Your task to perform on an android device: find which apps use the phone's location Image 0: 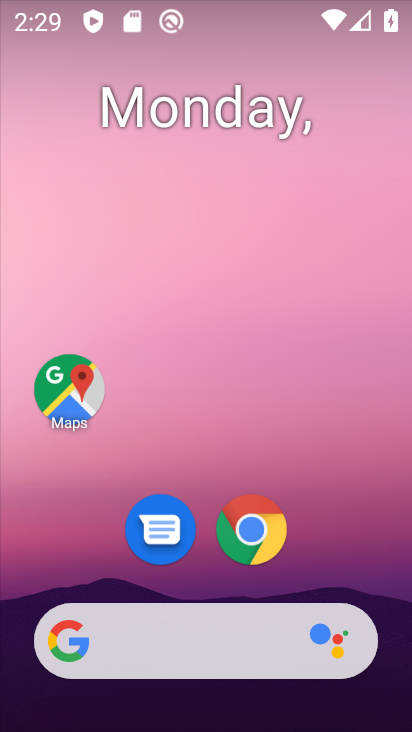
Step 0: click (354, 433)
Your task to perform on an android device: find which apps use the phone's location Image 1: 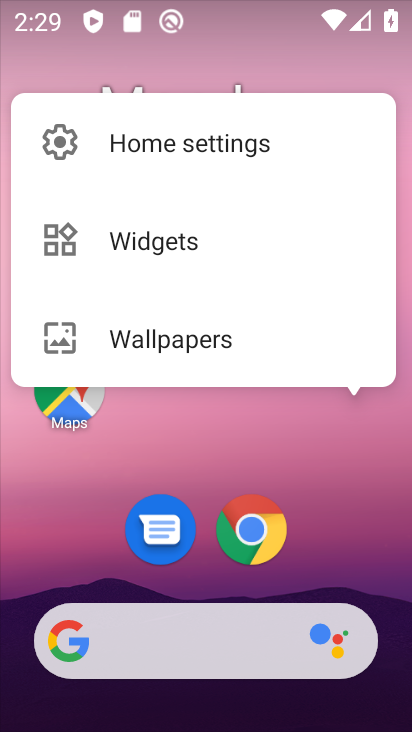
Step 1: press home button
Your task to perform on an android device: find which apps use the phone's location Image 2: 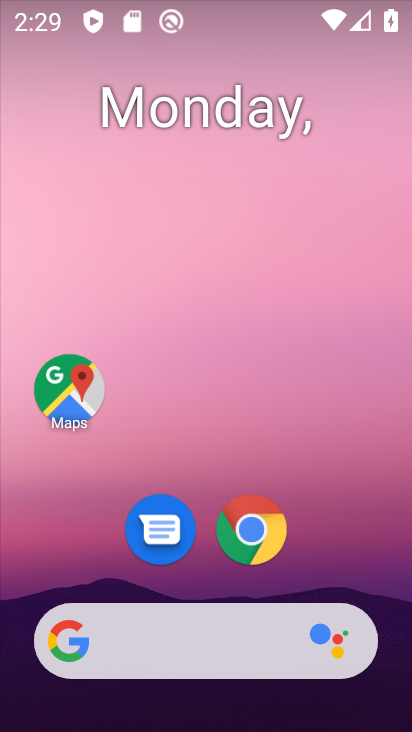
Step 2: drag from (353, 541) to (317, 1)
Your task to perform on an android device: find which apps use the phone's location Image 3: 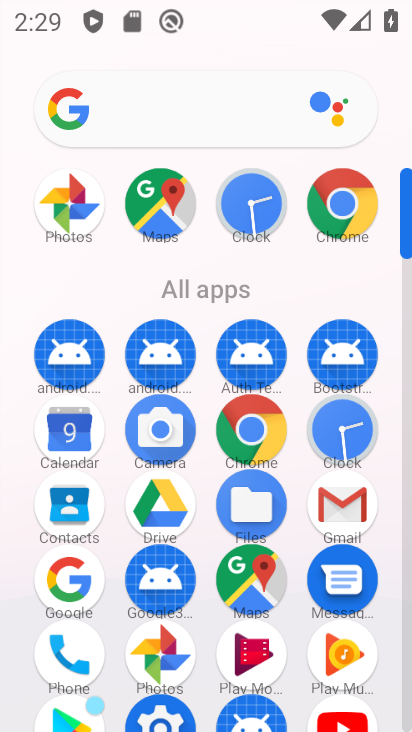
Step 3: drag from (285, 605) to (290, 349)
Your task to perform on an android device: find which apps use the phone's location Image 4: 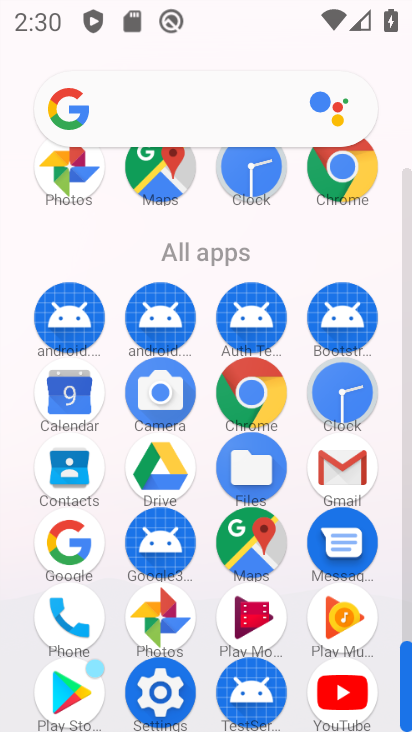
Step 4: click (169, 693)
Your task to perform on an android device: find which apps use the phone's location Image 5: 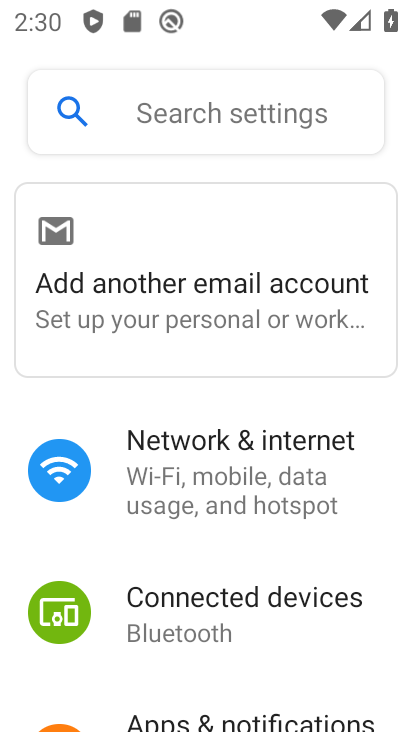
Step 5: drag from (285, 668) to (283, 393)
Your task to perform on an android device: find which apps use the phone's location Image 6: 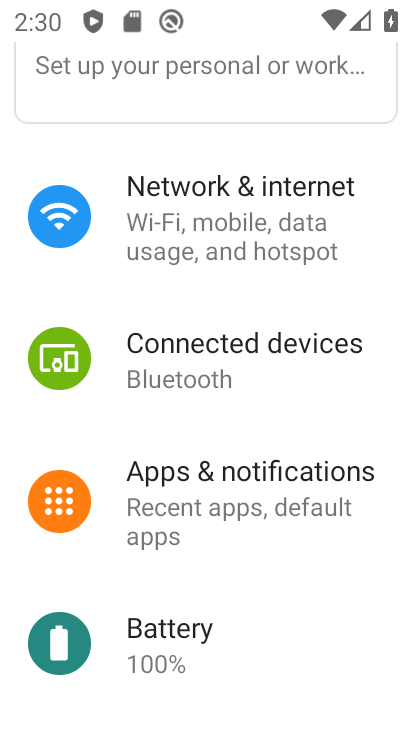
Step 6: drag from (231, 673) to (277, 320)
Your task to perform on an android device: find which apps use the phone's location Image 7: 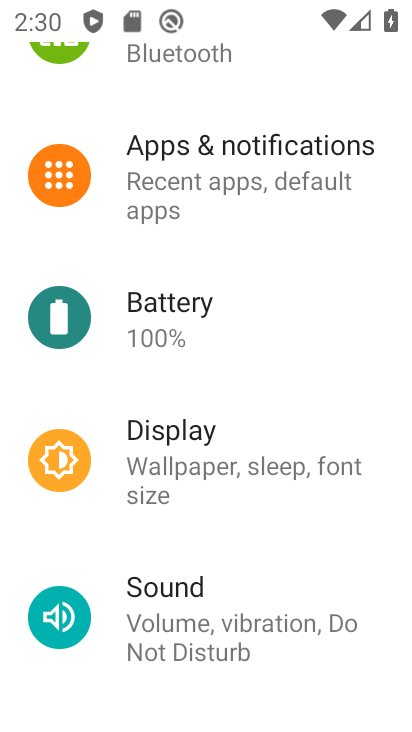
Step 7: drag from (275, 534) to (282, 238)
Your task to perform on an android device: find which apps use the phone's location Image 8: 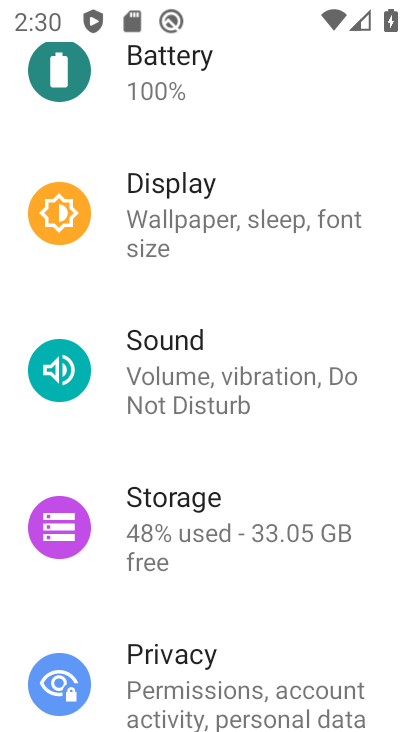
Step 8: drag from (294, 588) to (304, 278)
Your task to perform on an android device: find which apps use the phone's location Image 9: 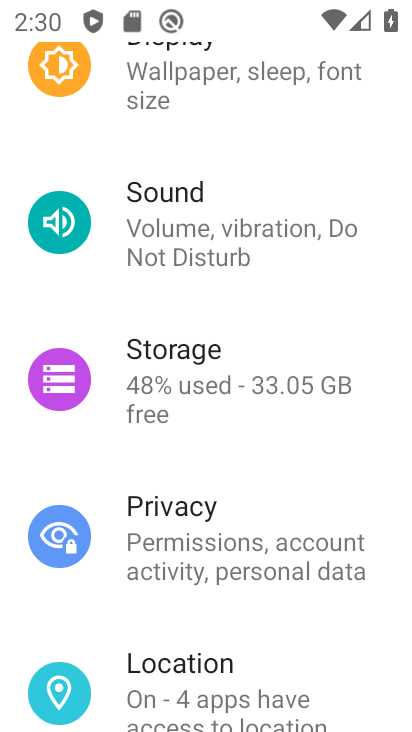
Step 9: click (252, 662)
Your task to perform on an android device: find which apps use the phone's location Image 10: 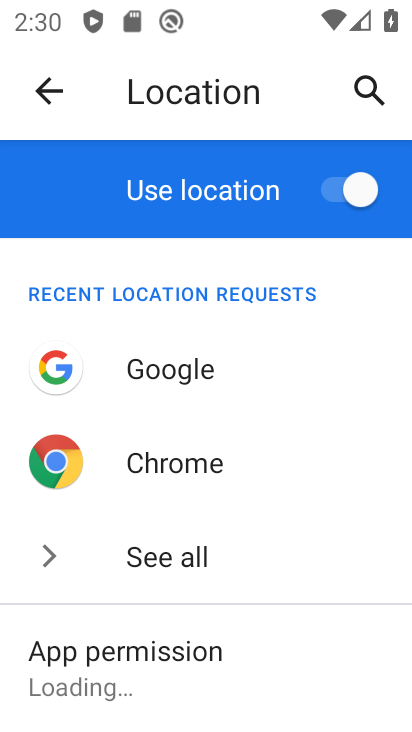
Step 10: task complete